Your task to perform on an android device: Show me productivity apps on the Play Store Image 0: 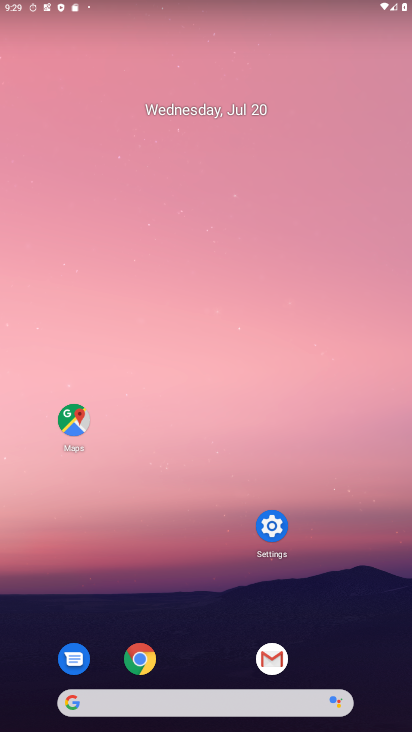
Step 0: drag from (256, 725) to (324, 216)
Your task to perform on an android device: Show me productivity apps on the Play Store Image 1: 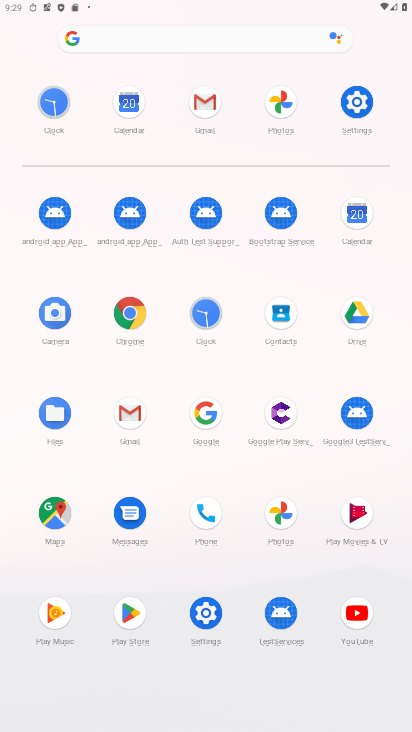
Step 1: click (133, 609)
Your task to perform on an android device: Show me productivity apps on the Play Store Image 2: 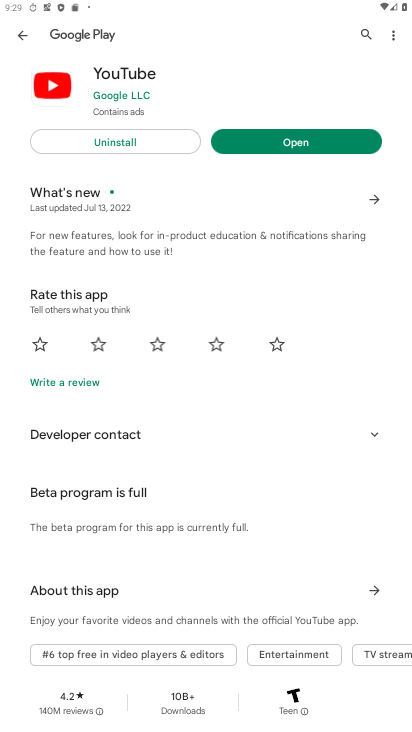
Step 2: click (366, 31)
Your task to perform on an android device: Show me productivity apps on the Play Store Image 3: 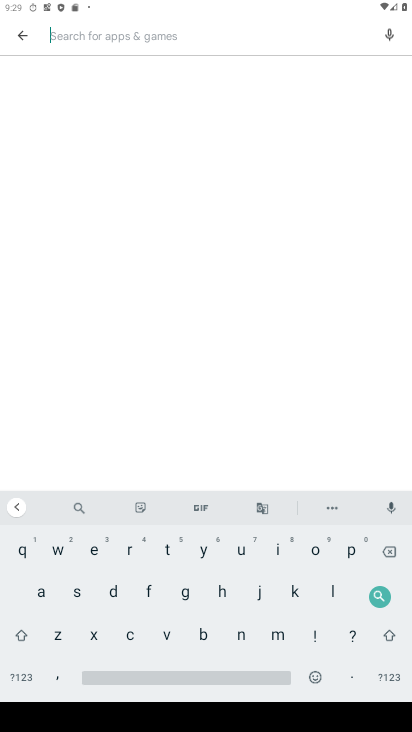
Step 3: click (352, 559)
Your task to perform on an android device: Show me productivity apps on the Play Store Image 4: 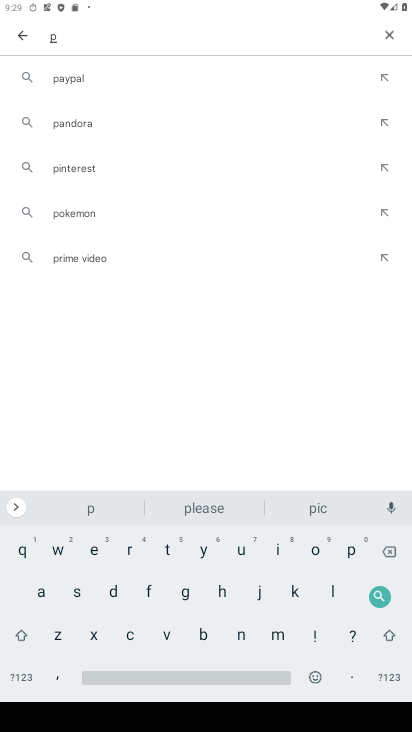
Step 4: click (124, 551)
Your task to perform on an android device: Show me productivity apps on the Play Store Image 5: 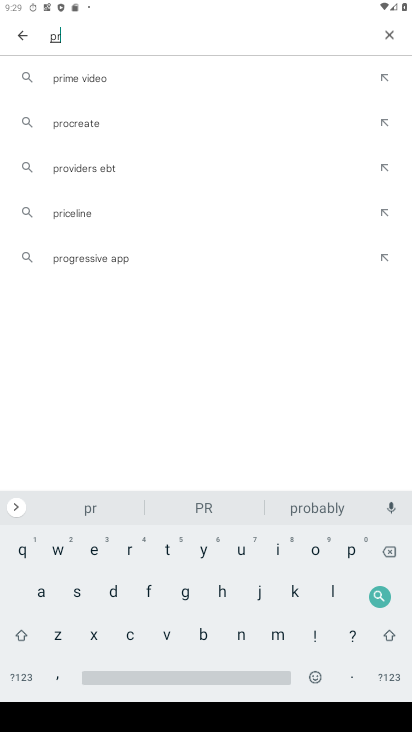
Step 5: click (321, 550)
Your task to perform on an android device: Show me productivity apps on the Play Store Image 6: 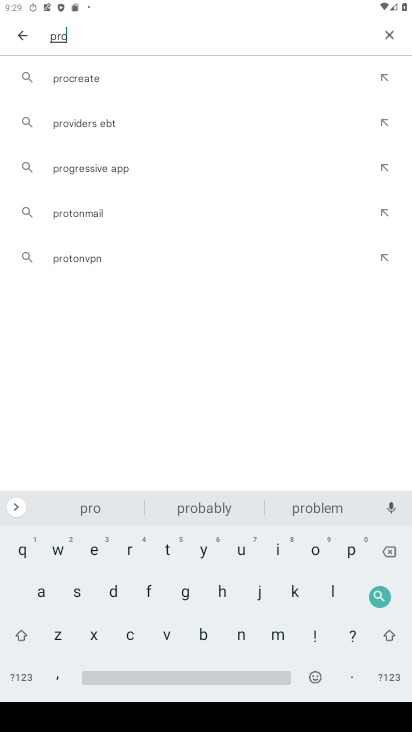
Step 6: click (108, 593)
Your task to perform on an android device: Show me productivity apps on the Play Store Image 7: 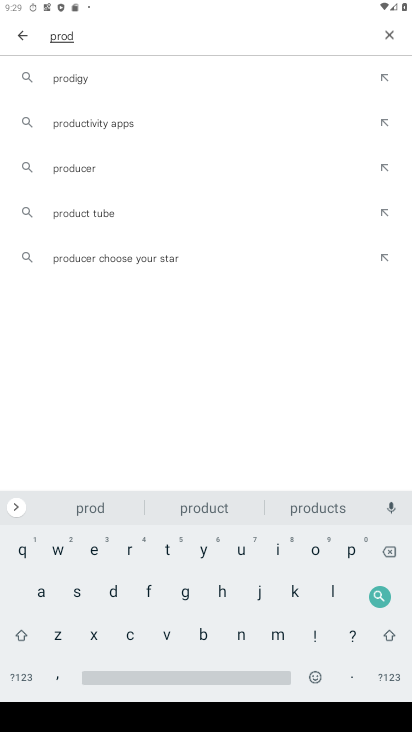
Step 7: click (120, 120)
Your task to perform on an android device: Show me productivity apps on the Play Store Image 8: 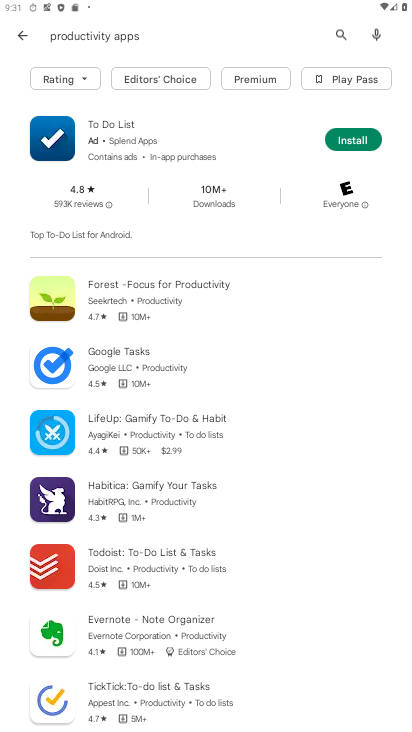
Step 8: task complete